Your task to perform on an android device: Open display settings Image 0: 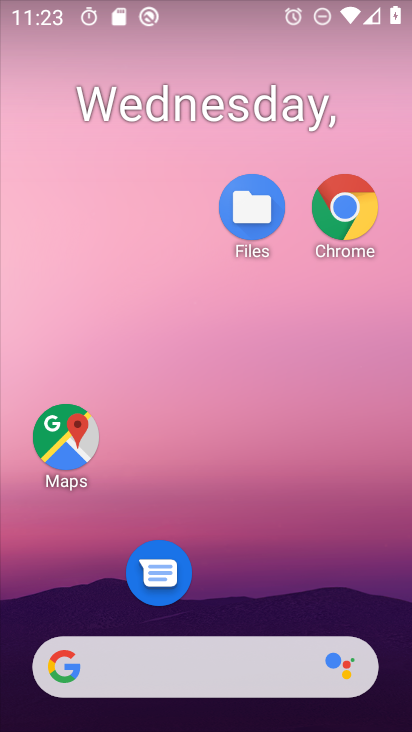
Step 0: drag from (256, 627) to (277, 183)
Your task to perform on an android device: Open display settings Image 1: 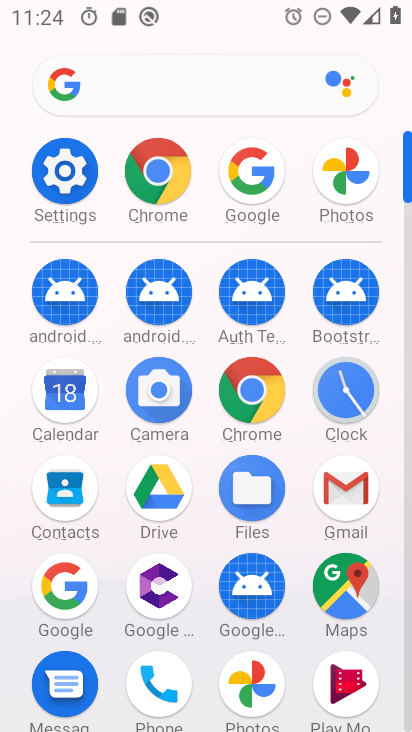
Step 1: drag from (257, 506) to (274, 340)
Your task to perform on an android device: Open display settings Image 2: 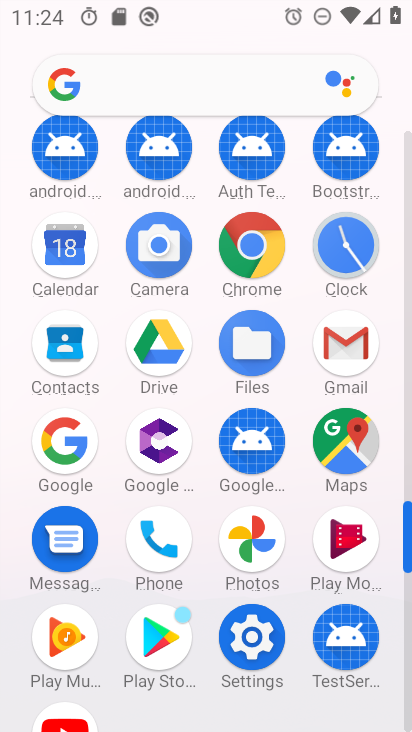
Step 2: drag from (239, 563) to (287, 364)
Your task to perform on an android device: Open display settings Image 3: 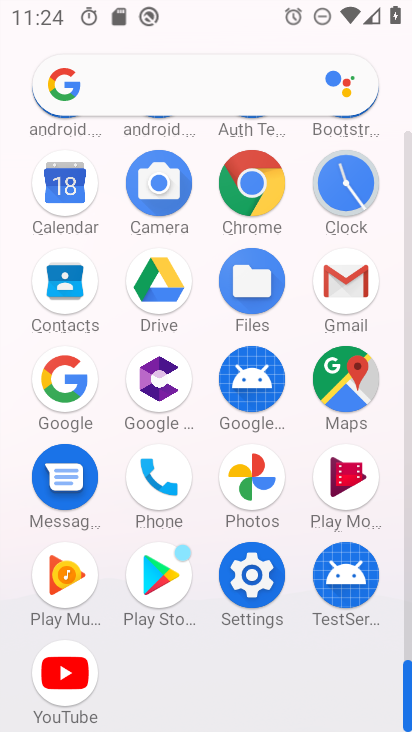
Step 3: click (266, 580)
Your task to perform on an android device: Open display settings Image 4: 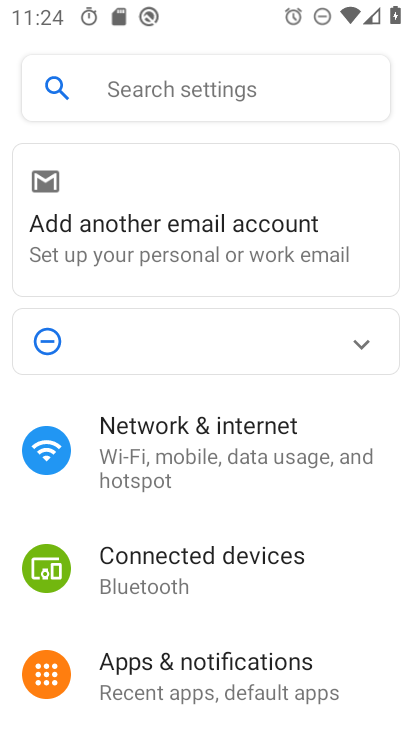
Step 4: drag from (275, 557) to (324, 263)
Your task to perform on an android device: Open display settings Image 5: 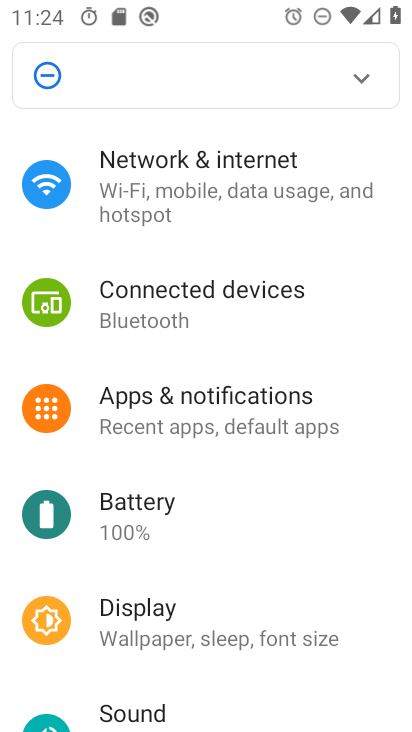
Step 5: click (243, 622)
Your task to perform on an android device: Open display settings Image 6: 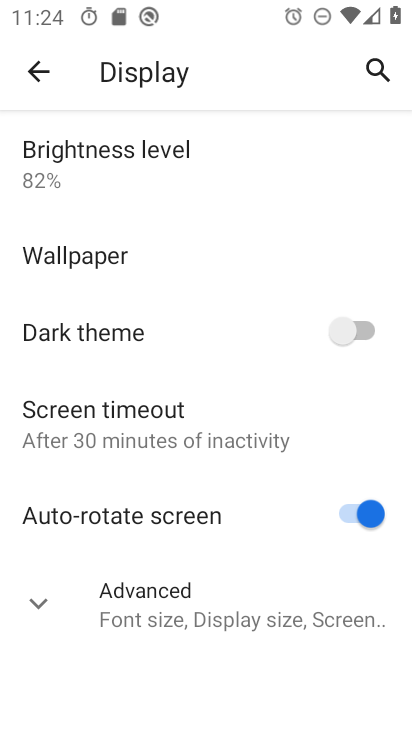
Step 6: task complete